Your task to perform on an android device: Go to internet settings Image 0: 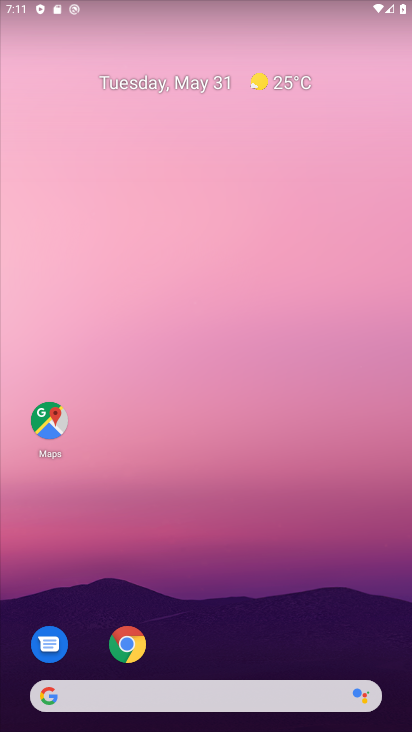
Step 0: press home button
Your task to perform on an android device: Go to internet settings Image 1: 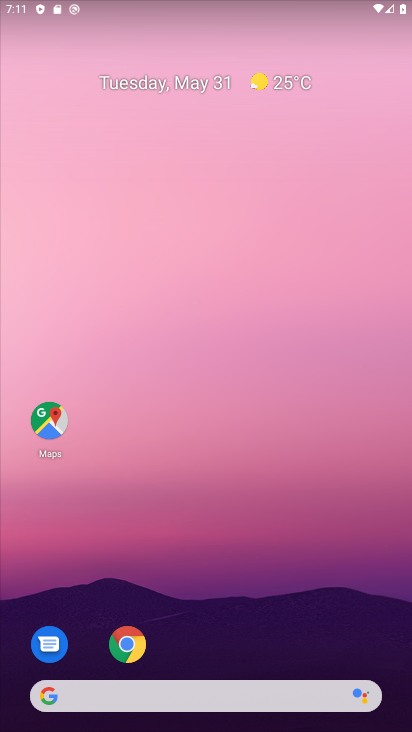
Step 1: drag from (233, 720) to (310, 209)
Your task to perform on an android device: Go to internet settings Image 2: 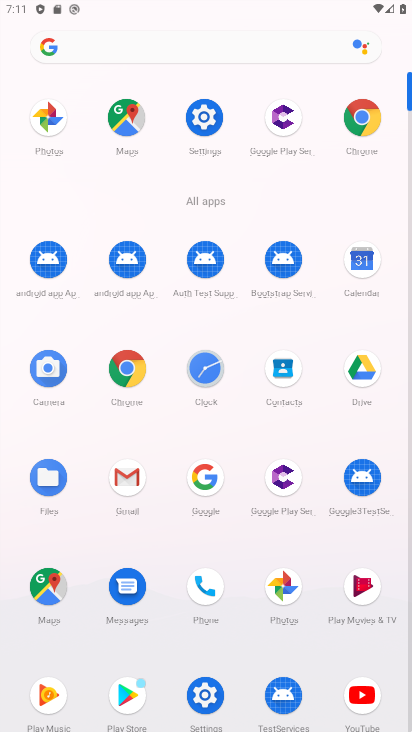
Step 2: click (200, 109)
Your task to perform on an android device: Go to internet settings Image 3: 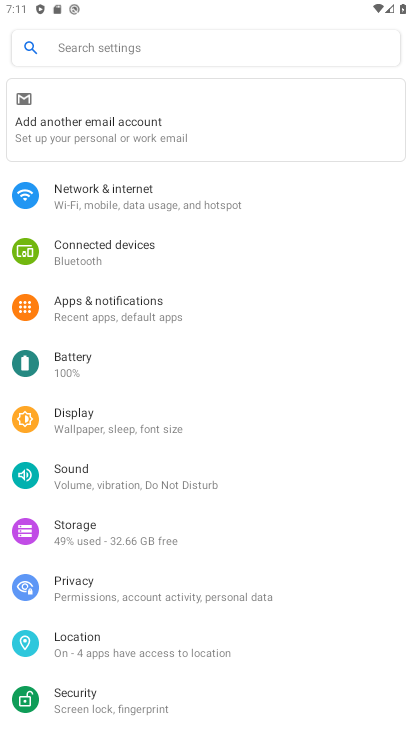
Step 3: click (110, 209)
Your task to perform on an android device: Go to internet settings Image 4: 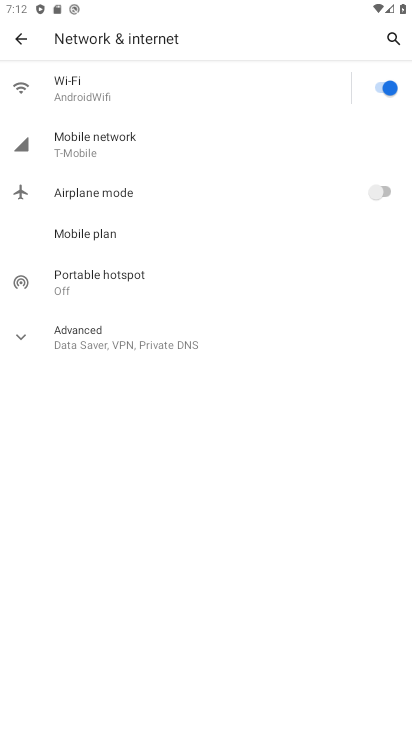
Step 4: task complete